Your task to perform on an android device: turn on airplane mode Image 0: 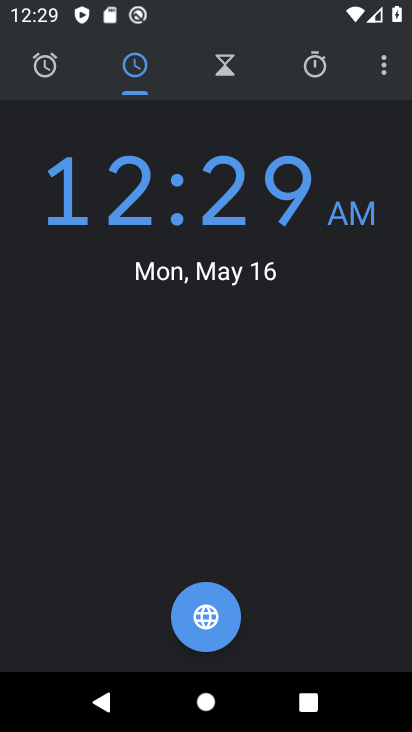
Step 0: press home button
Your task to perform on an android device: turn on airplane mode Image 1: 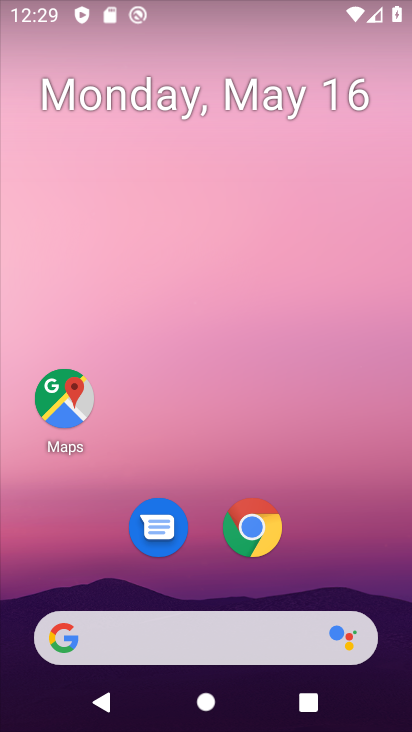
Step 1: drag from (162, 649) to (327, 61)
Your task to perform on an android device: turn on airplane mode Image 2: 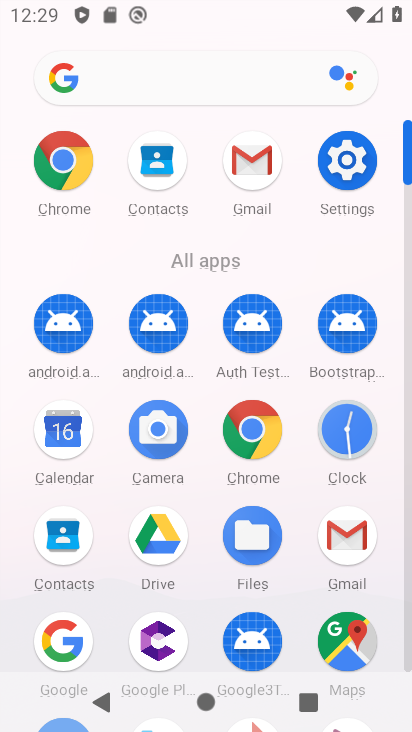
Step 2: click (350, 179)
Your task to perform on an android device: turn on airplane mode Image 3: 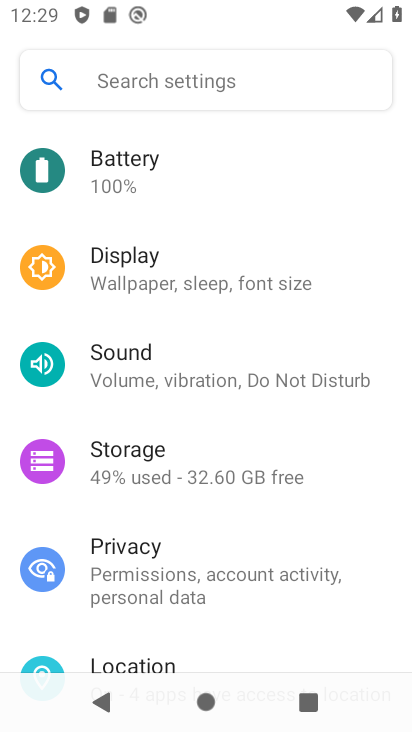
Step 3: drag from (316, 172) to (255, 517)
Your task to perform on an android device: turn on airplane mode Image 4: 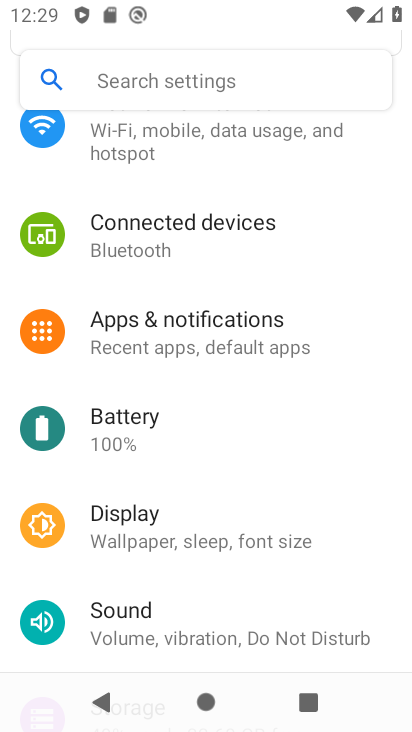
Step 4: drag from (307, 201) to (237, 525)
Your task to perform on an android device: turn on airplane mode Image 5: 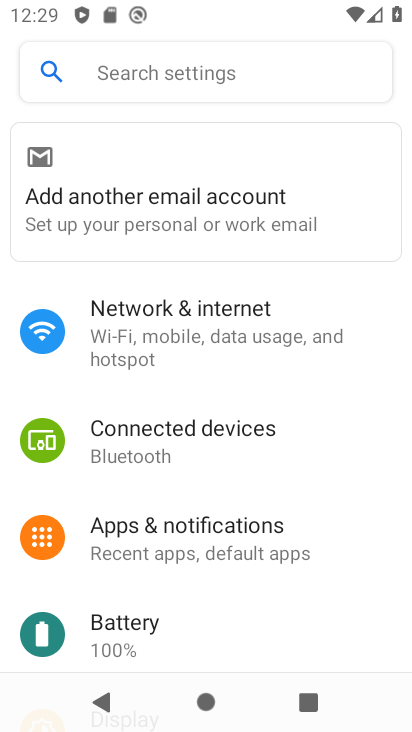
Step 5: click (225, 330)
Your task to perform on an android device: turn on airplane mode Image 6: 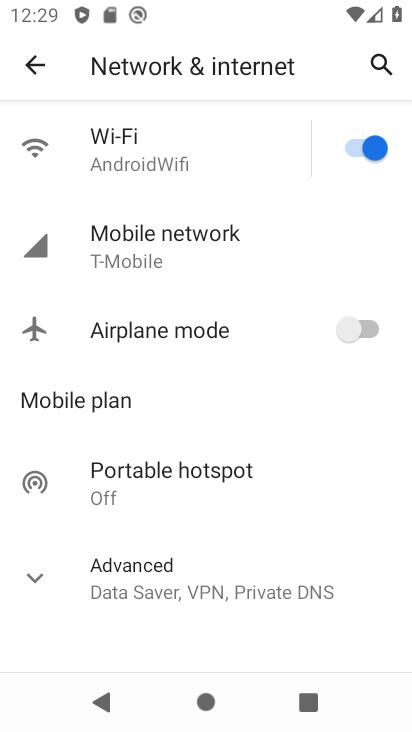
Step 6: click (371, 324)
Your task to perform on an android device: turn on airplane mode Image 7: 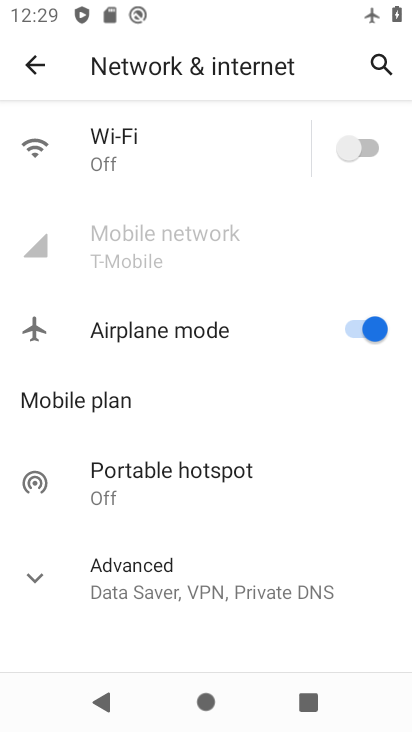
Step 7: task complete